Your task to perform on an android device: delete a single message in the gmail app Image 0: 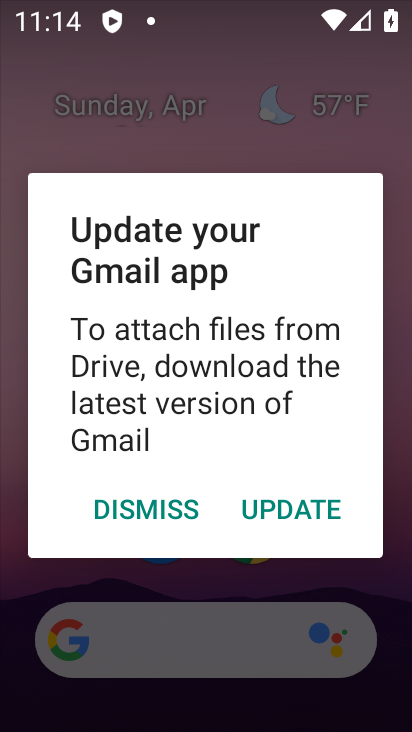
Step 0: press home button
Your task to perform on an android device: delete a single message in the gmail app Image 1: 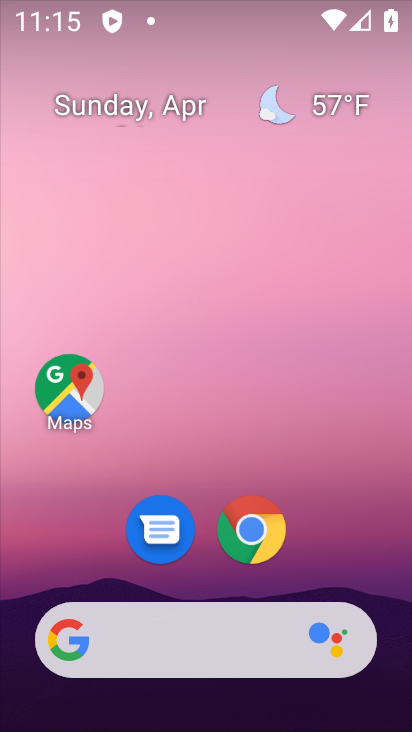
Step 1: drag from (335, 561) to (232, 3)
Your task to perform on an android device: delete a single message in the gmail app Image 2: 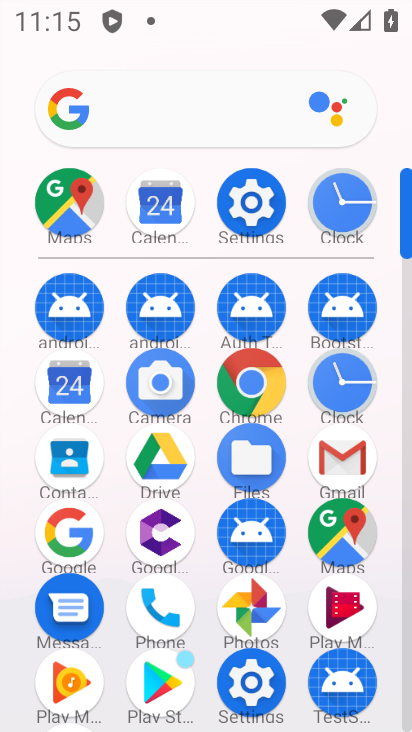
Step 2: click (334, 448)
Your task to perform on an android device: delete a single message in the gmail app Image 3: 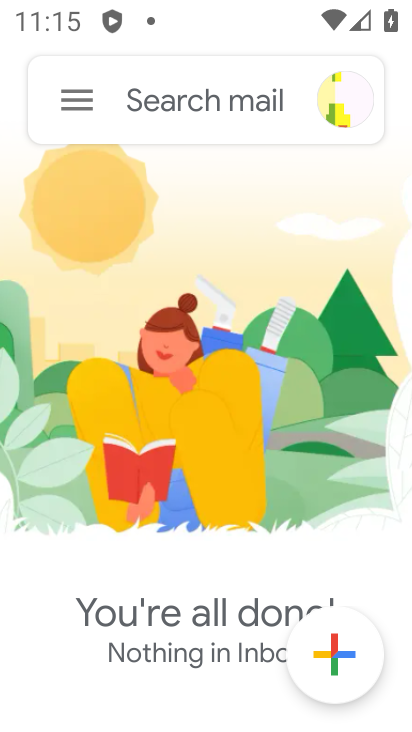
Step 3: click (66, 108)
Your task to perform on an android device: delete a single message in the gmail app Image 4: 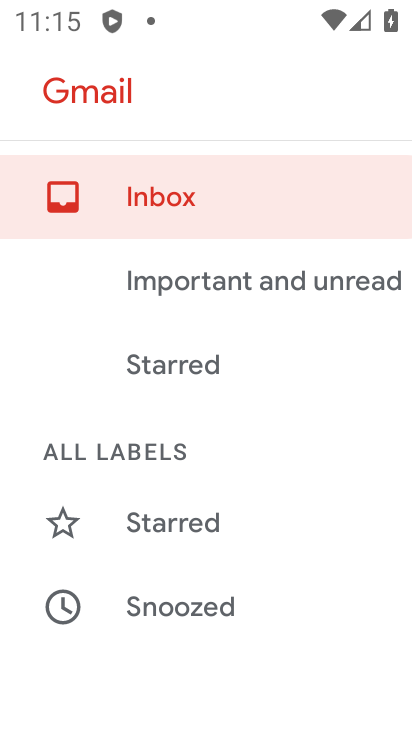
Step 4: click (214, 221)
Your task to perform on an android device: delete a single message in the gmail app Image 5: 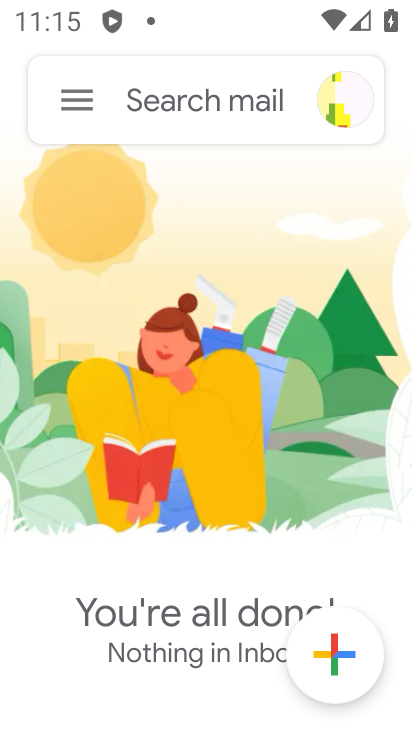
Step 5: task complete